Your task to perform on an android device: remove spam from my inbox in the gmail app Image 0: 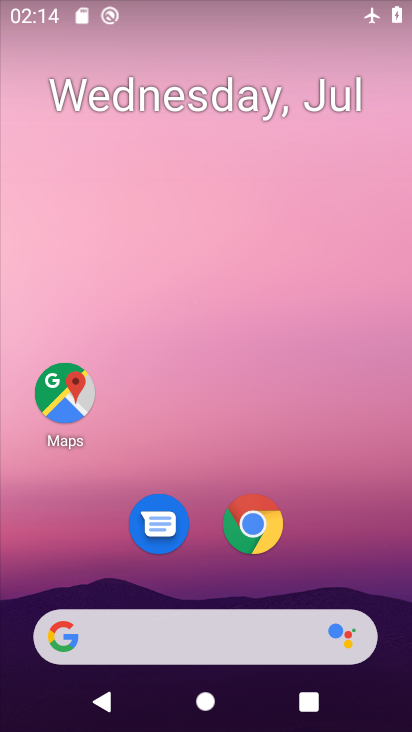
Step 0: press home button
Your task to perform on an android device: remove spam from my inbox in the gmail app Image 1: 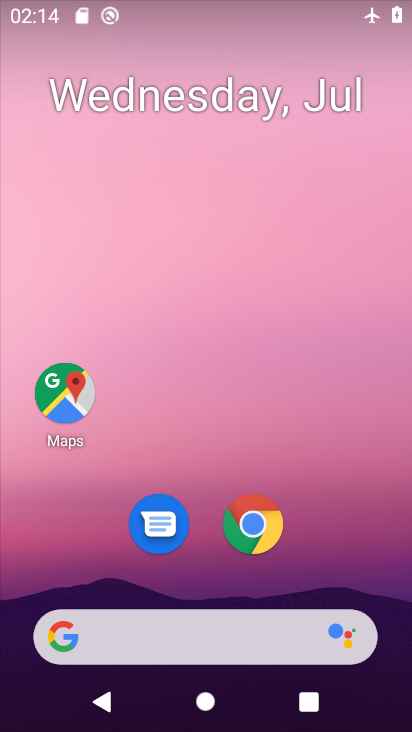
Step 1: drag from (325, 533) to (298, 51)
Your task to perform on an android device: remove spam from my inbox in the gmail app Image 2: 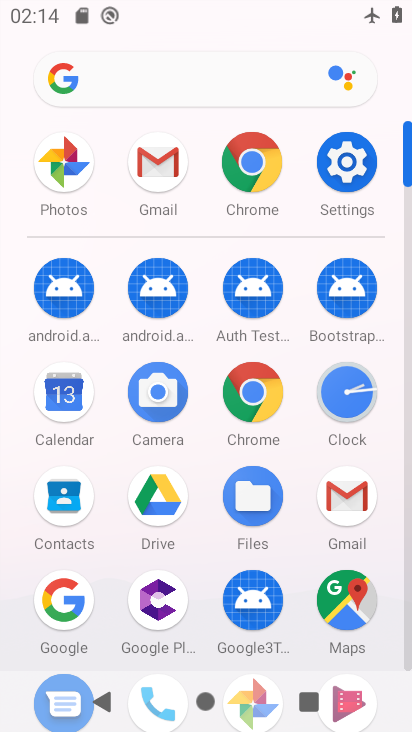
Step 2: click (157, 174)
Your task to perform on an android device: remove spam from my inbox in the gmail app Image 3: 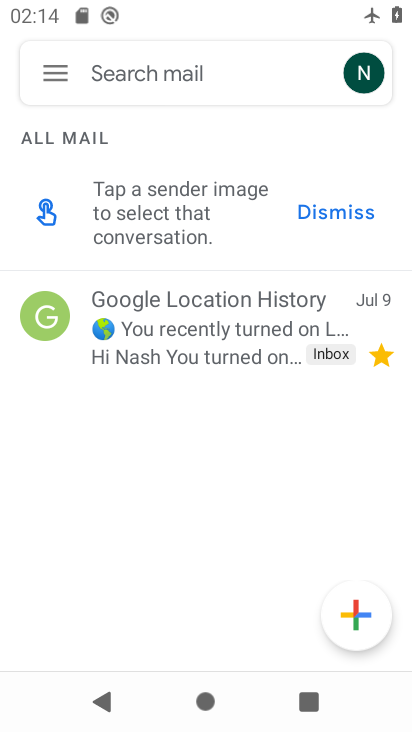
Step 3: click (51, 79)
Your task to perform on an android device: remove spam from my inbox in the gmail app Image 4: 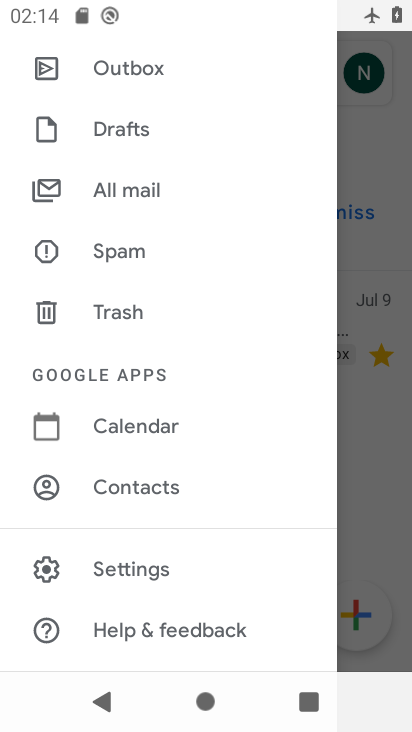
Step 4: click (128, 242)
Your task to perform on an android device: remove spam from my inbox in the gmail app Image 5: 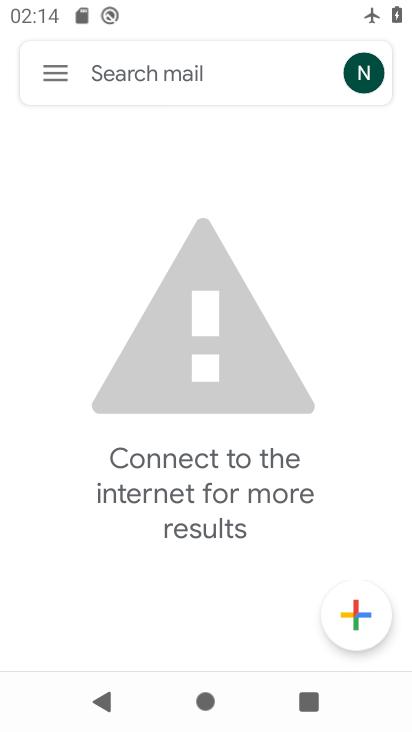
Step 5: task complete